Your task to perform on an android device: turn off notifications settings in the gmail app Image 0: 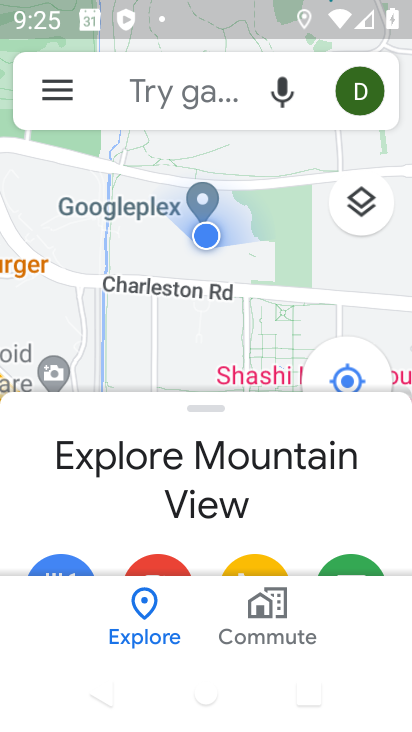
Step 0: press home button
Your task to perform on an android device: turn off notifications settings in the gmail app Image 1: 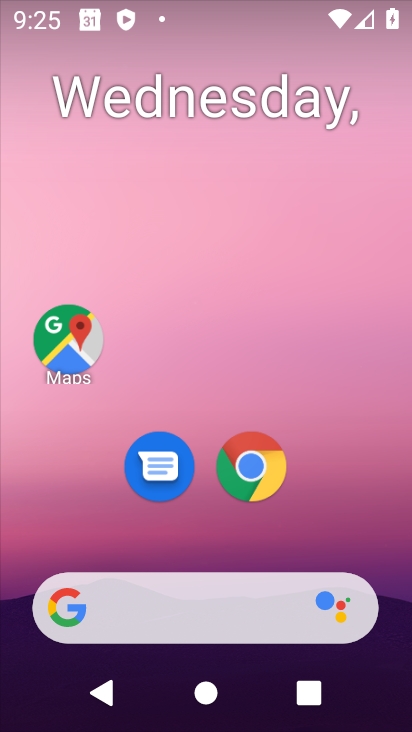
Step 1: drag from (301, 510) to (304, 316)
Your task to perform on an android device: turn off notifications settings in the gmail app Image 2: 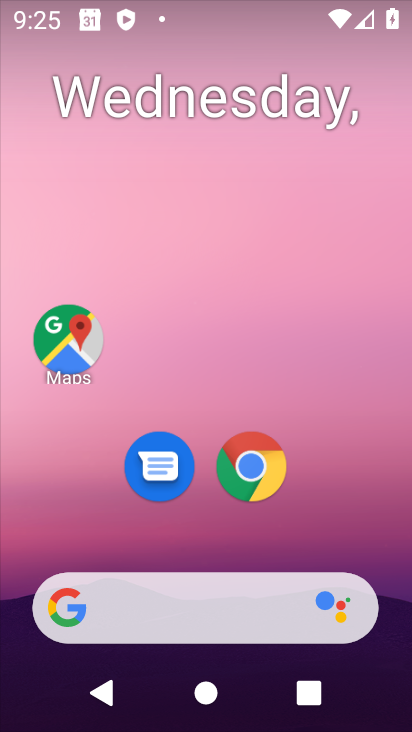
Step 2: drag from (306, 464) to (322, 165)
Your task to perform on an android device: turn off notifications settings in the gmail app Image 3: 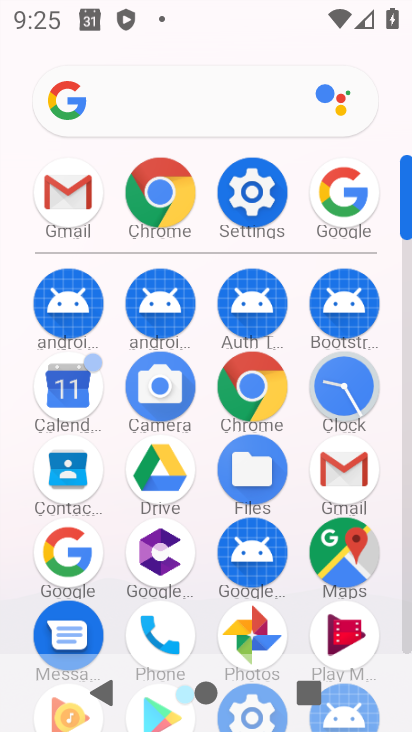
Step 3: click (56, 188)
Your task to perform on an android device: turn off notifications settings in the gmail app Image 4: 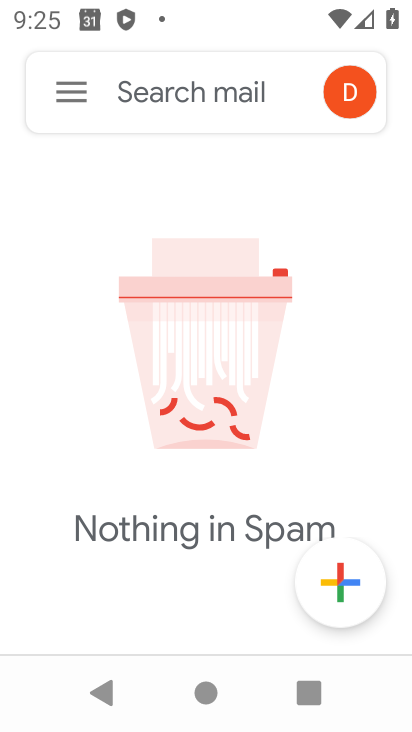
Step 4: click (68, 82)
Your task to perform on an android device: turn off notifications settings in the gmail app Image 5: 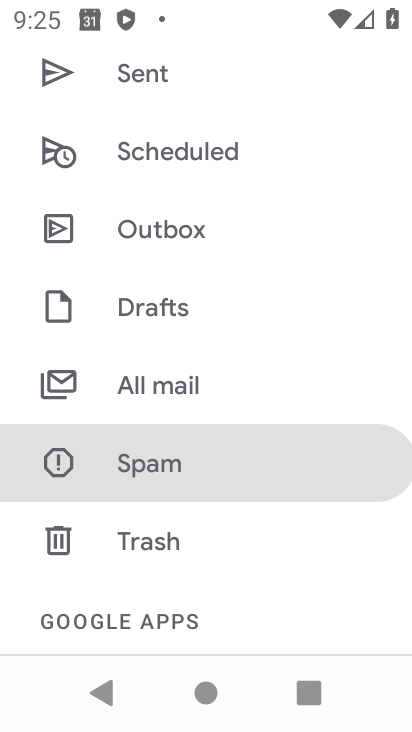
Step 5: drag from (203, 615) to (290, 148)
Your task to perform on an android device: turn off notifications settings in the gmail app Image 6: 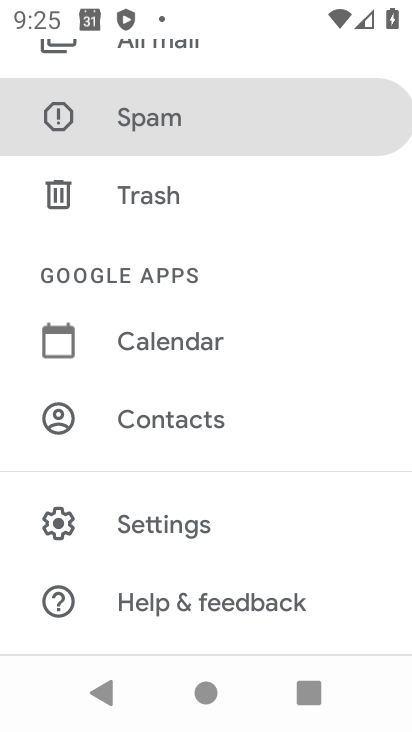
Step 6: click (171, 527)
Your task to perform on an android device: turn off notifications settings in the gmail app Image 7: 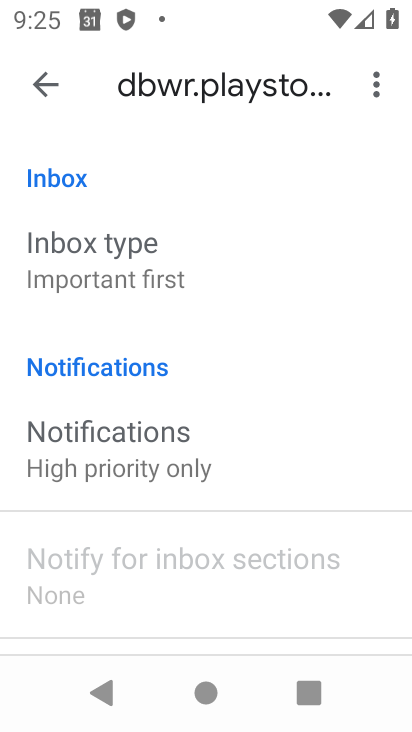
Step 7: click (153, 449)
Your task to perform on an android device: turn off notifications settings in the gmail app Image 8: 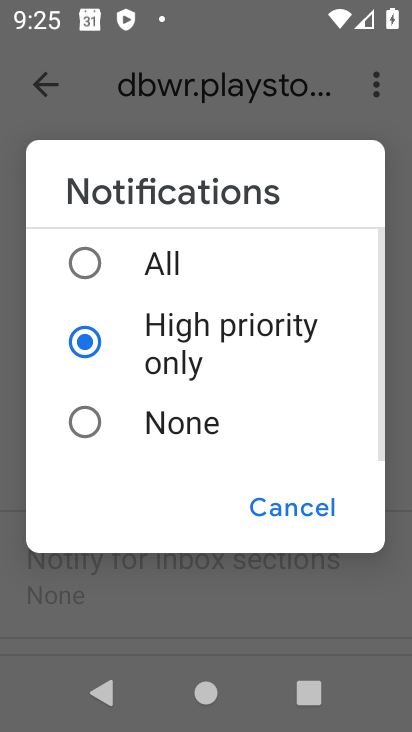
Step 8: click (167, 438)
Your task to perform on an android device: turn off notifications settings in the gmail app Image 9: 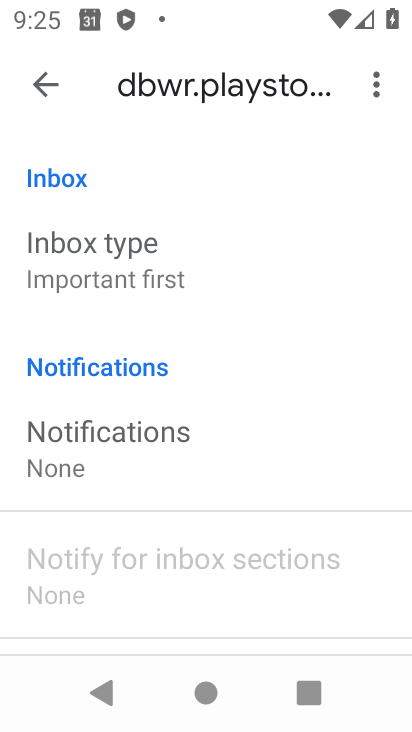
Step 9: task complete